Your task to perform on an android device: Open the map Image 0: 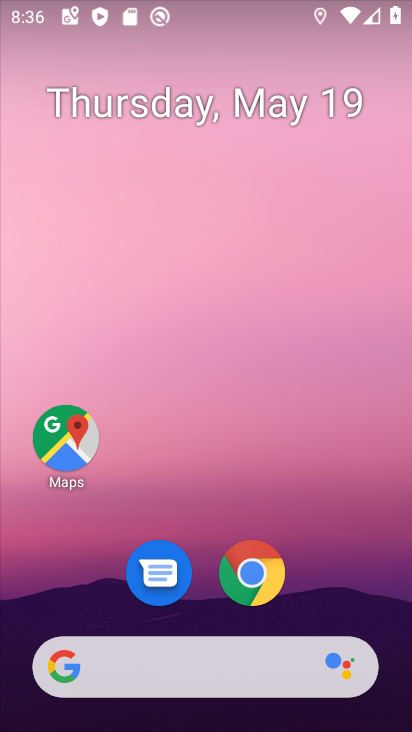
Step 0: click (74, 446)
Your task to perform on an android device: Open the map Image 1: 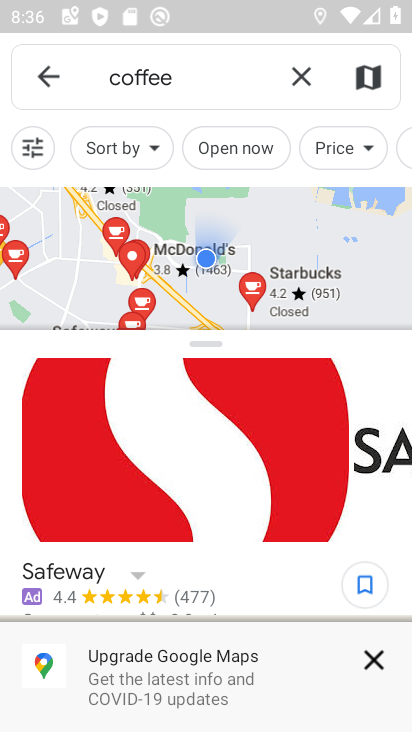
Step 1: task complete